Your task to perform on an android device: turn on priority inbox in the gmail app Image 0: 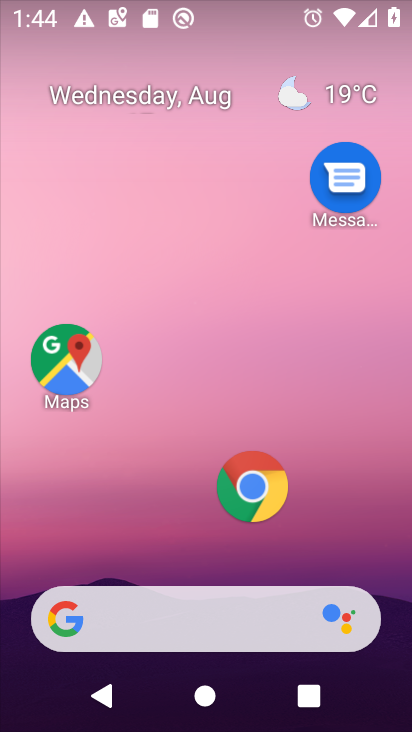
Step 0: drag from (164, 405) to (216, 40)
Your task to perform on an android device: turn on priority inbox in the gmail app Image 1: 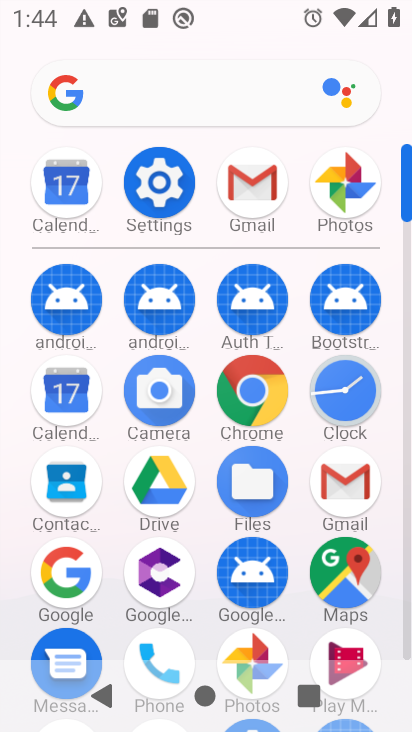
Step 1: click (255, 181)
Your task to perform on an android device: turn on priority inbox in the gmail app Image 2: 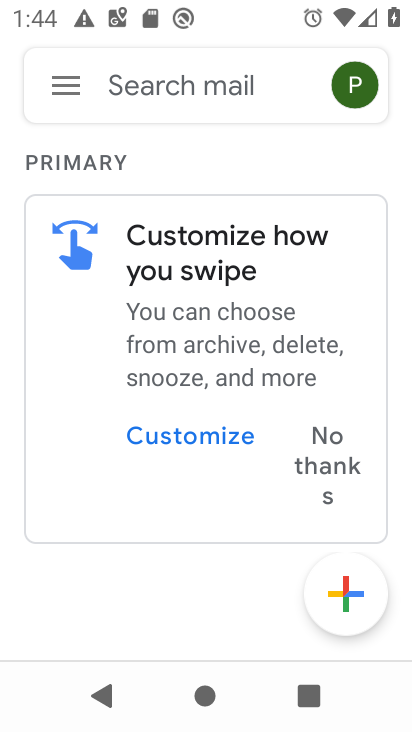
Step 2: click (65, 86)
Your task to perform on an android device: turn on priority inbox in the gmail app Image 3: 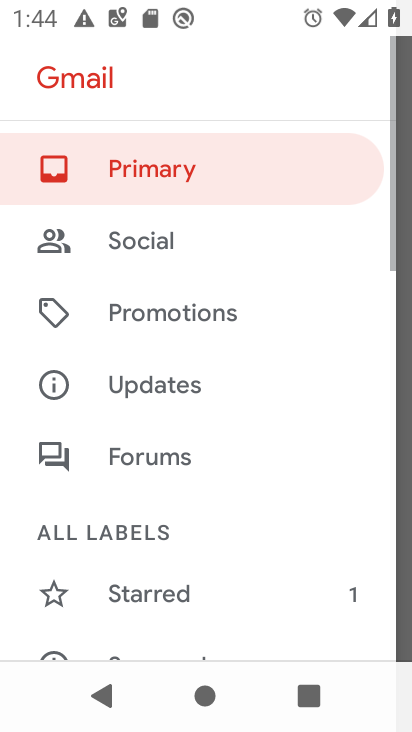
Step 3: drag from (231, 651) to (329, 0)
Your task to perform on an android device: turn on priority inbox in the gmail app Image 4: 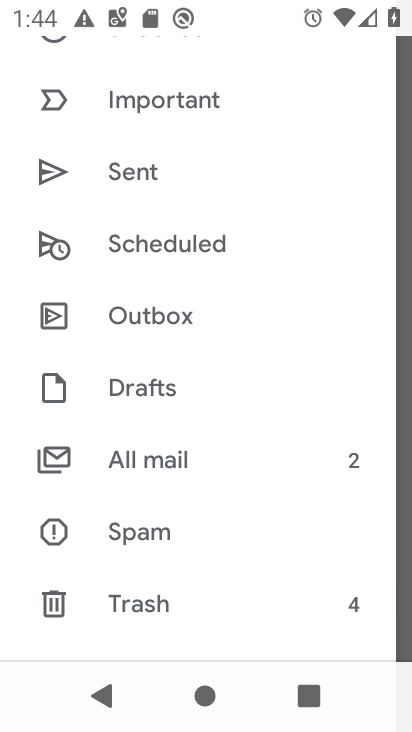
Step 4: drag from (134, 598) to (290, 9)
Your task to perform on an android device: turn on priority inbox in the gmail app Image 5: 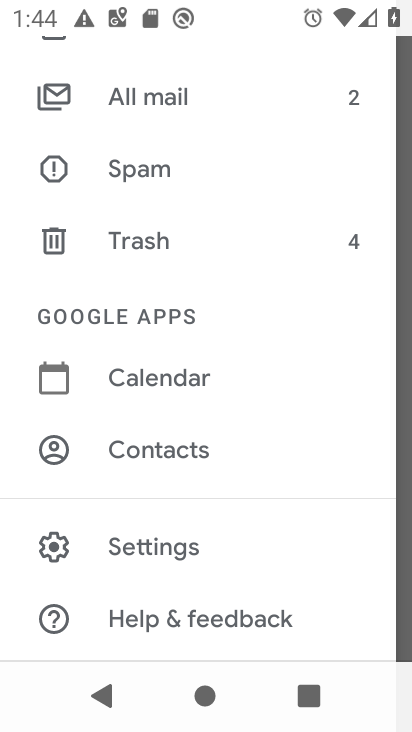
Step 5: click (157, 559)
Your task to perform on an android device: turn on priority inbox in the gmail app Image 6: 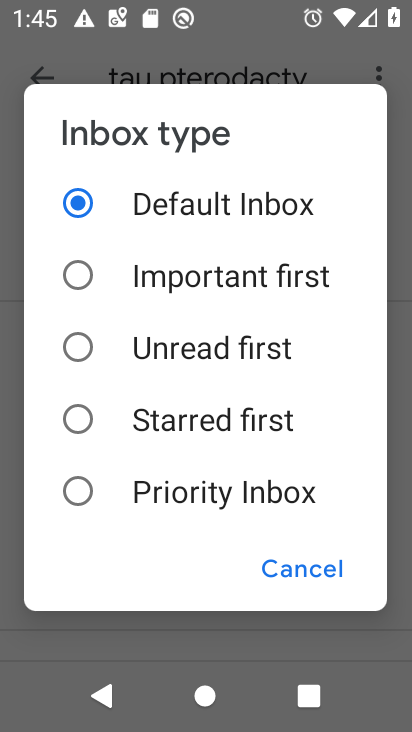
Step 6: click (92, 485)
Your task to perform on an android device: turn on priority inbox in the gmail app Image 7: 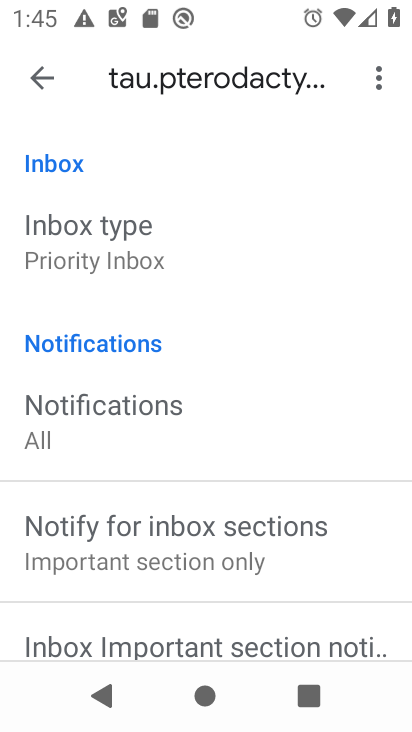
Step 7: task complete